Your task to perform on an android device: Go to settings Image 0: 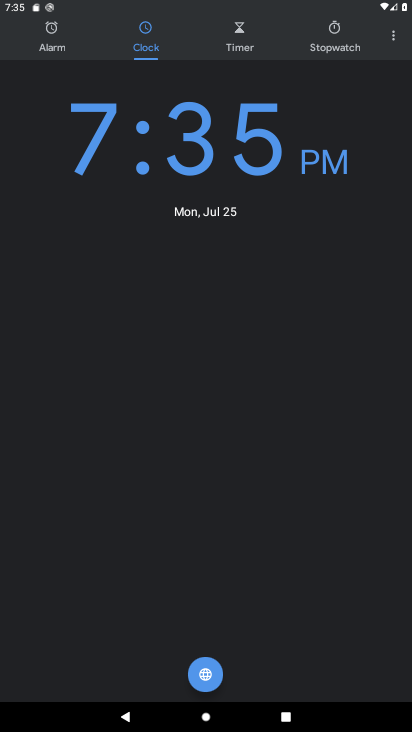
Step 0: press home button
Your task to perform on an android device: Go to settings Image 1: 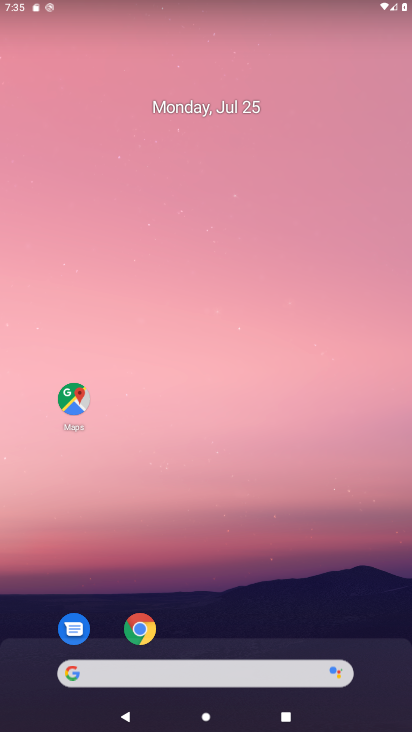
Step 1: drag from (41, 696) to (169, 31)
Your task to perform on an android device: Go to settings Image 2: 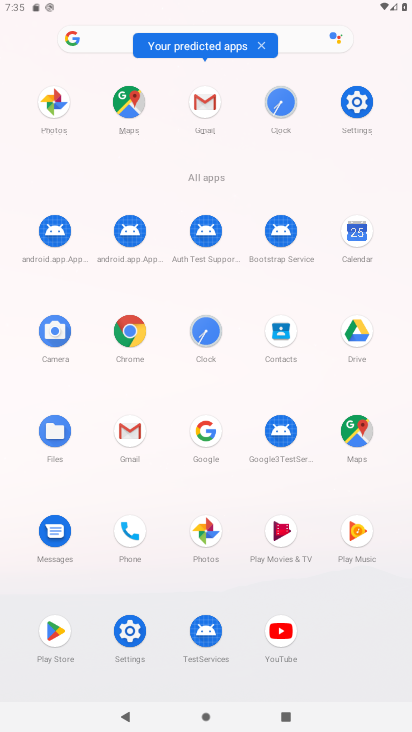
Step 2: click (131, 623)
Your task to perform on an android device: Go to settings Image 3: 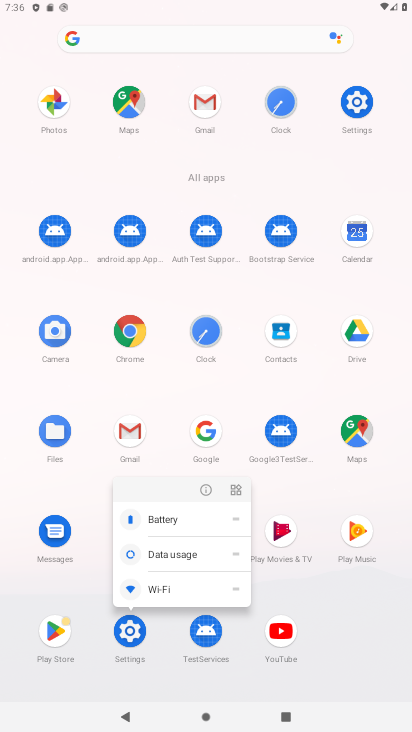
Step 3: click (121, 632)
Your task to perform on an android device: Go to settings Image 4: 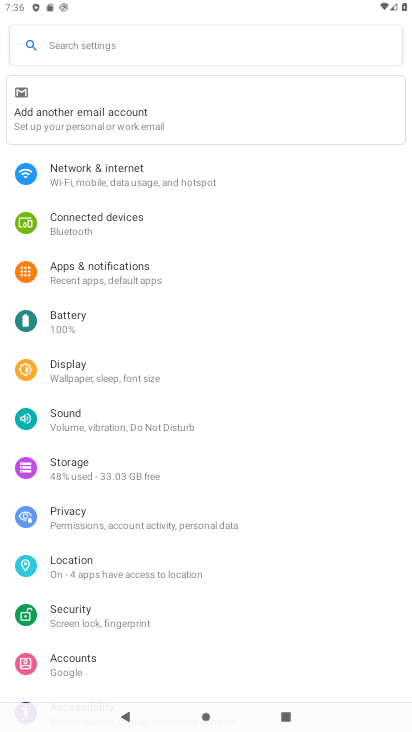
Step 4: task complete